Your task to perform on an android device: Open Google Maps Image 0: 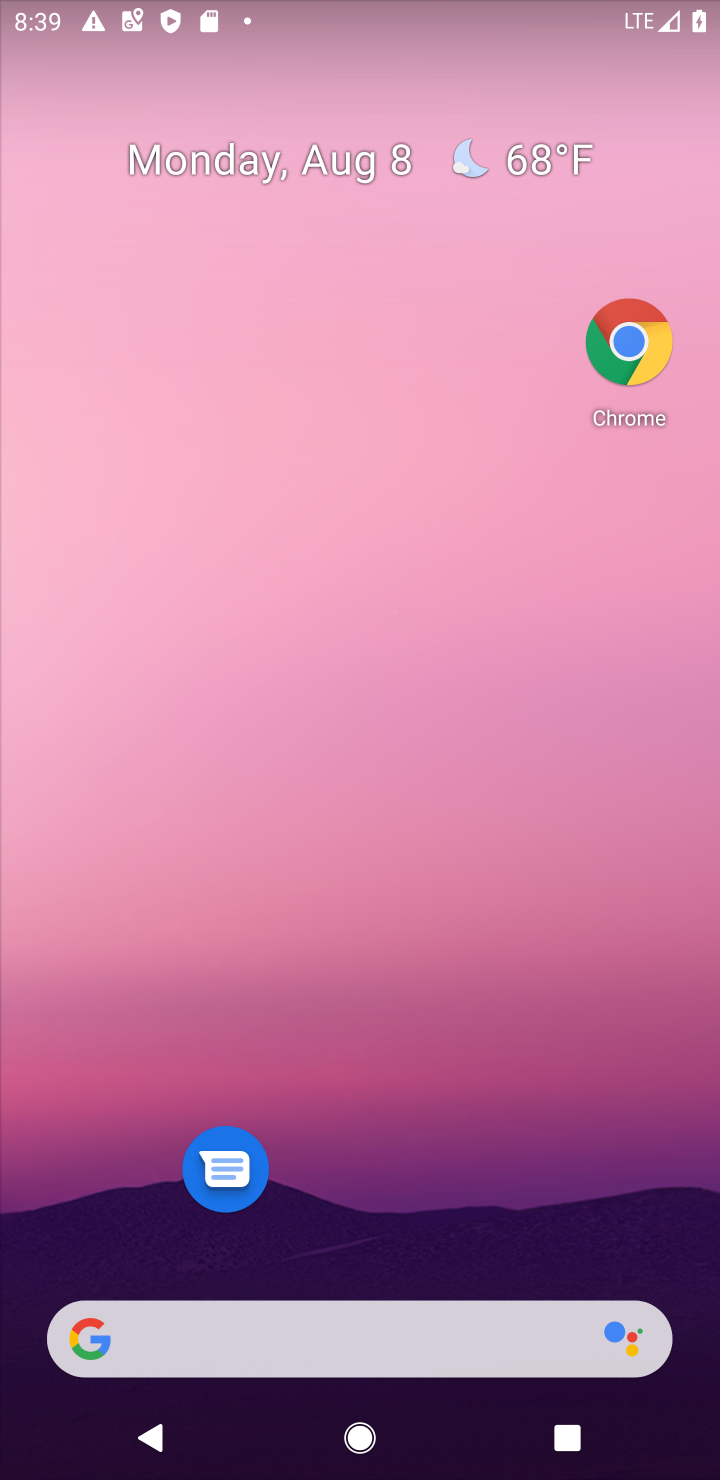
Step 0: press back button
Your task to perform on an android device: Open Google Maps Image 1: 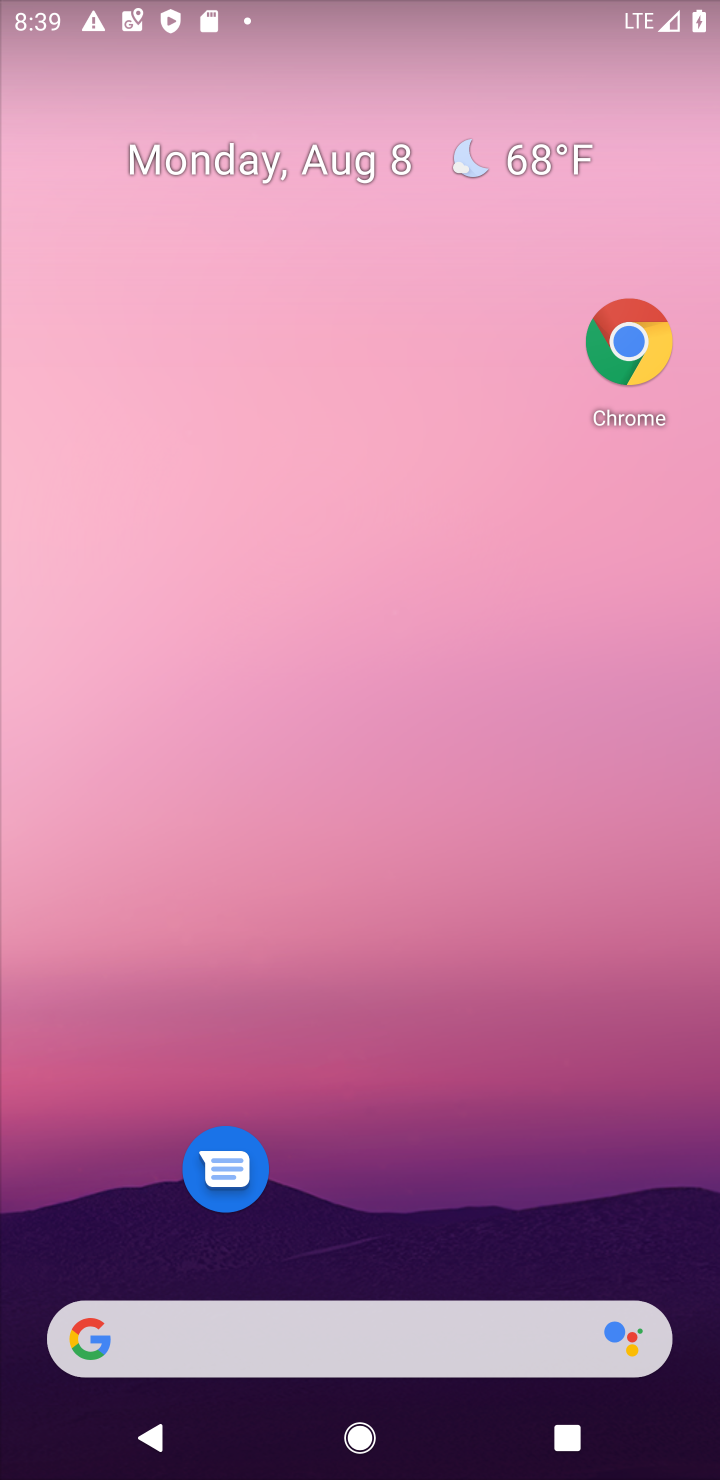
Step 1: drag from (439, 1065) to (595, 213)
Your task to perform on an android device: Open Google Maps Image 2: 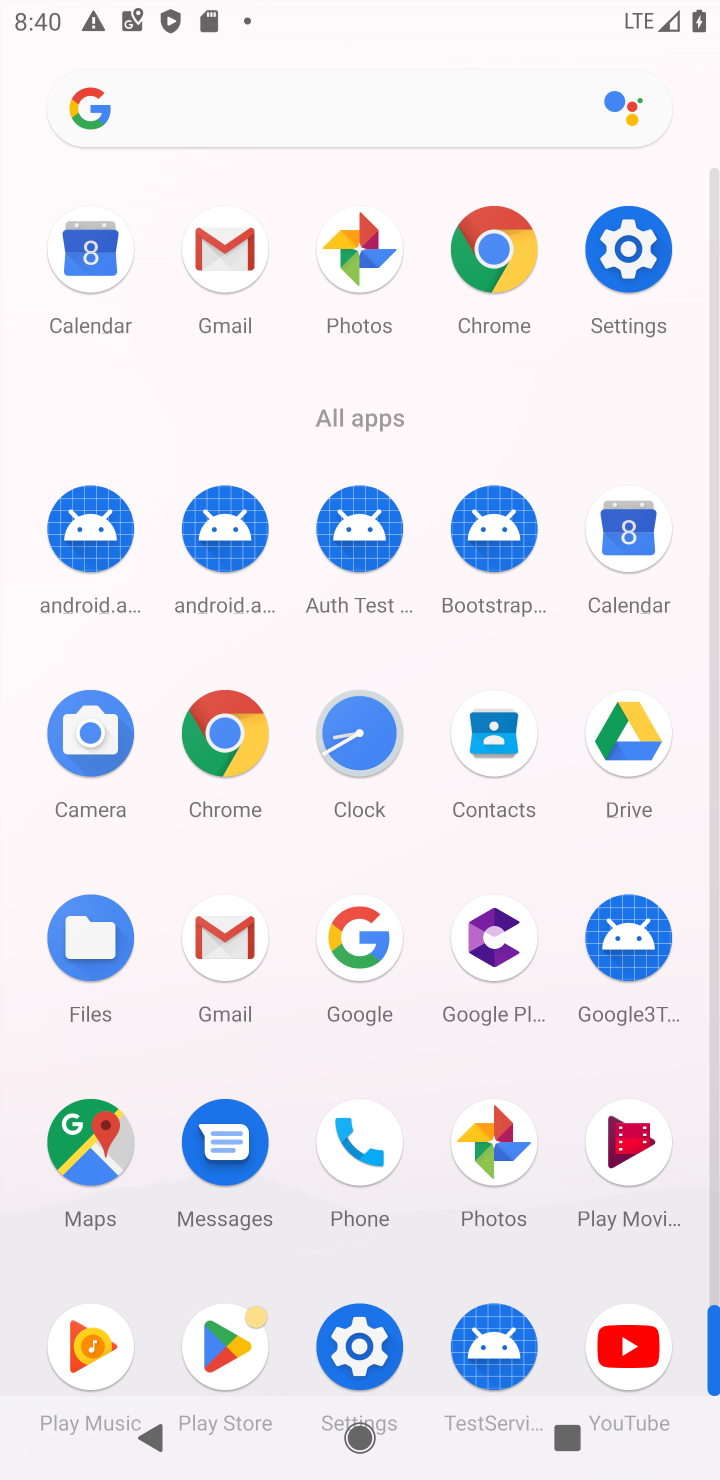
Step 2: click (77, 1158)
Your task to perform on an android device: Open Google Maps Image 3: 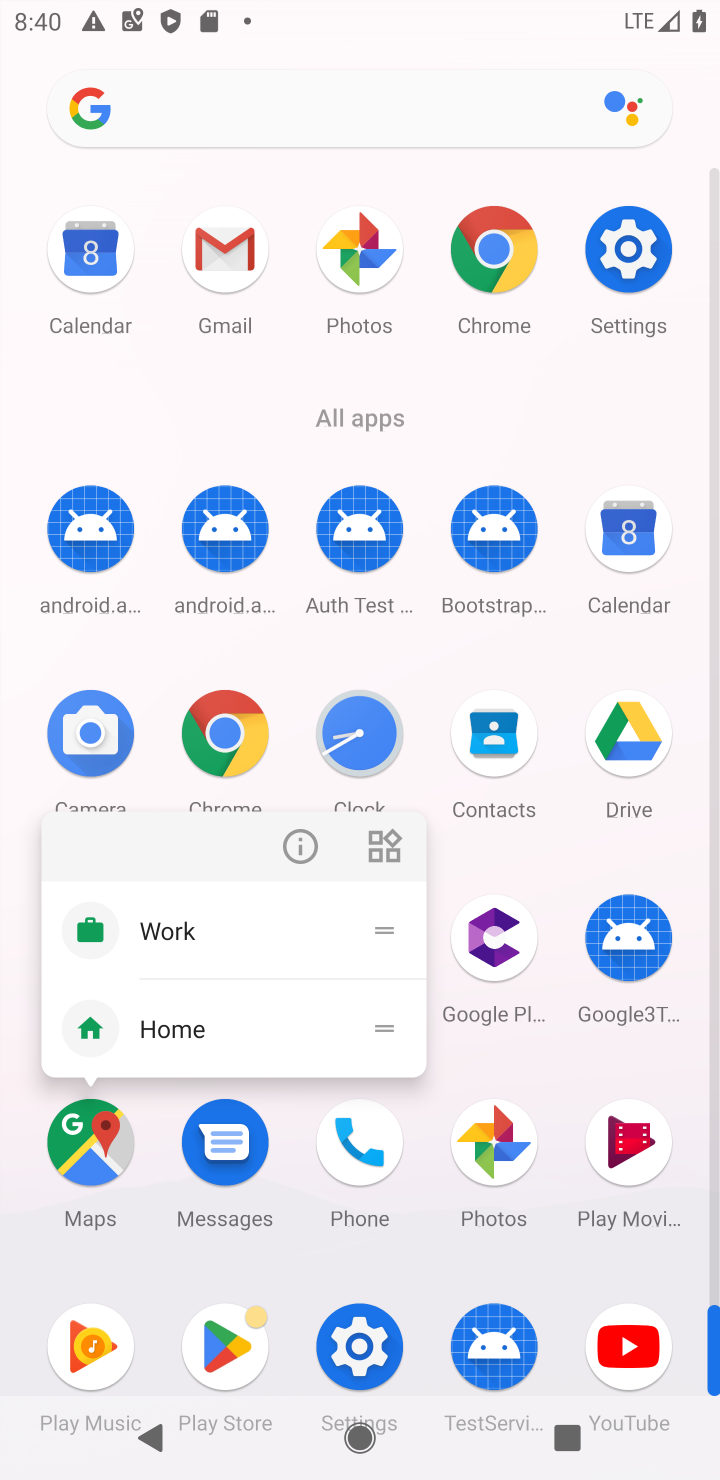
Step 3: click (75, 1151)
Your task to perform on an android device: Open Google Maps Image 4: 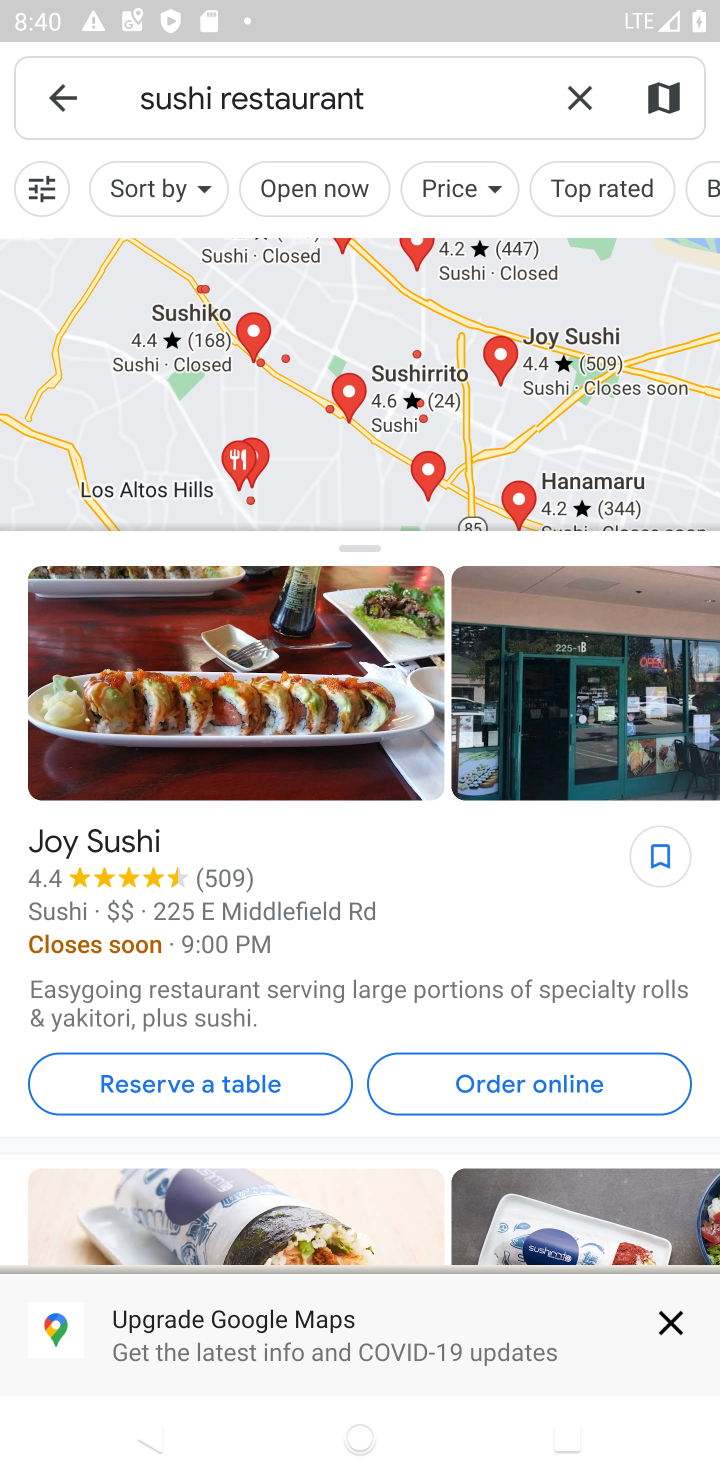
Step 4: task complete